Your task to perform on an android device: Open Yahoo.com Image 0: 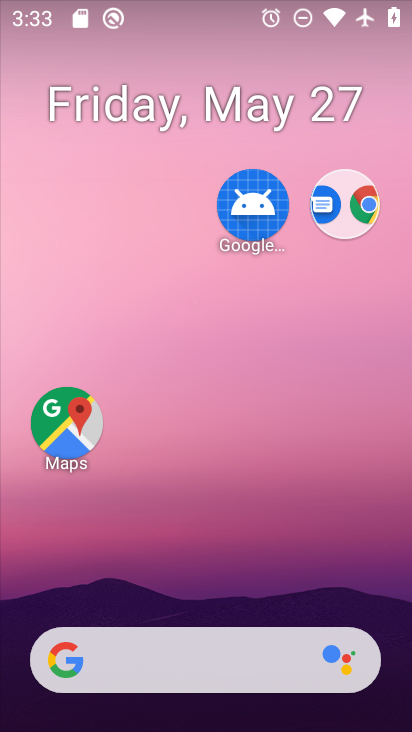
Step 0: drag from (249, 581) to (306, 189)
Your task to perform on an android device: Open Yahoo.com Image 1: 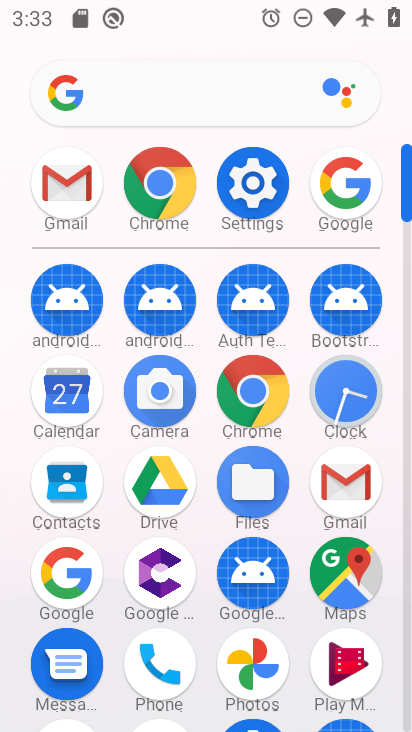
Step 1: click (167, 187)
Your task to perform on an android device: Open Yahoo.com Image 2: 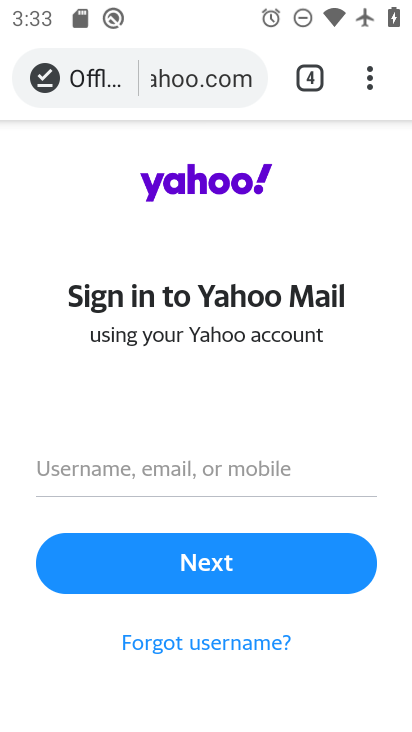
Step 2: click (201, 81)
Your task to perform on an android device: Open Yahoo.com Image 3: 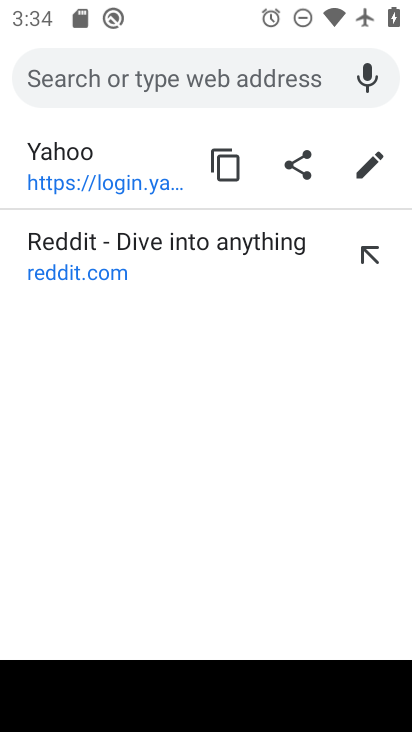
Step 3: click (140, 165)
Your task to perform on an android device: Open Yahoo.com Image 4: 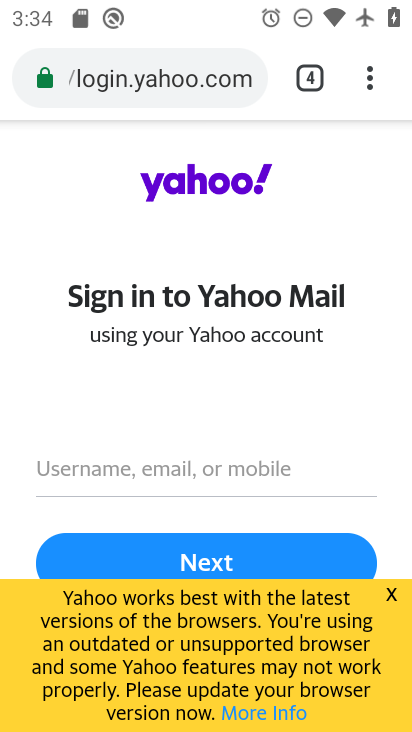
Step 4: task complete